Your task to perform on an android device: check android version Image 0: 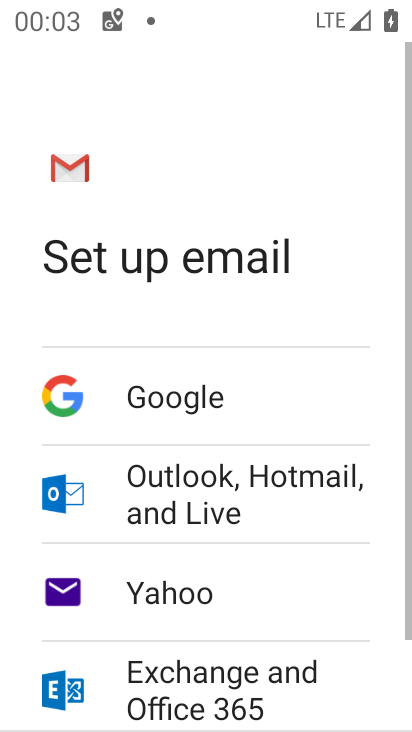
Step 0: press back button
Your task to perform on an android device: check android version Image 1: 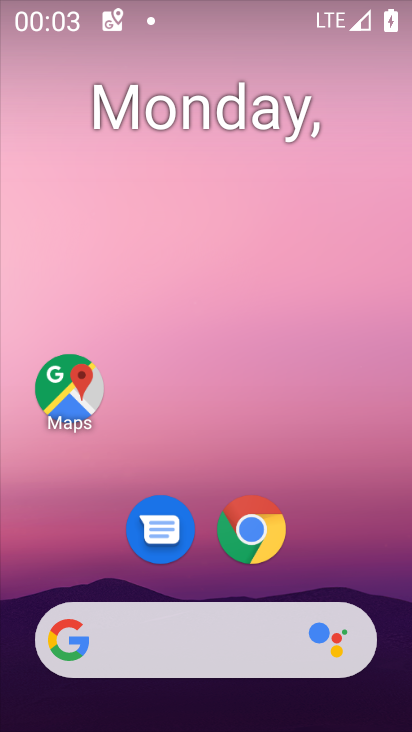
Step 1: drag from (349, 550) to (267, 5)
Your task to perform on an android device: check android version Image 2: 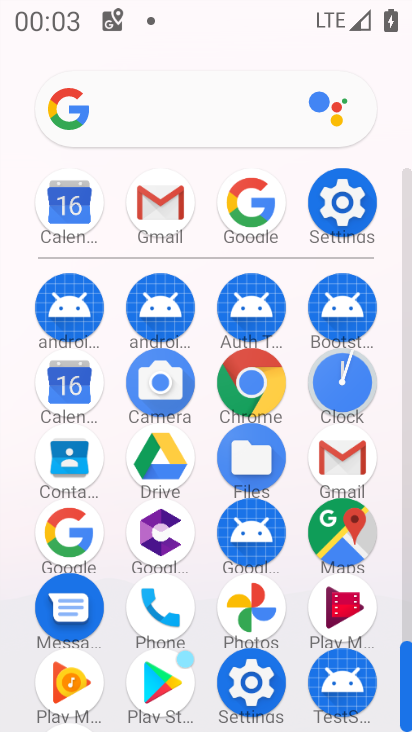
Step 2: click (343, 201)
Your task to perform on an android device: check android version Image 3: 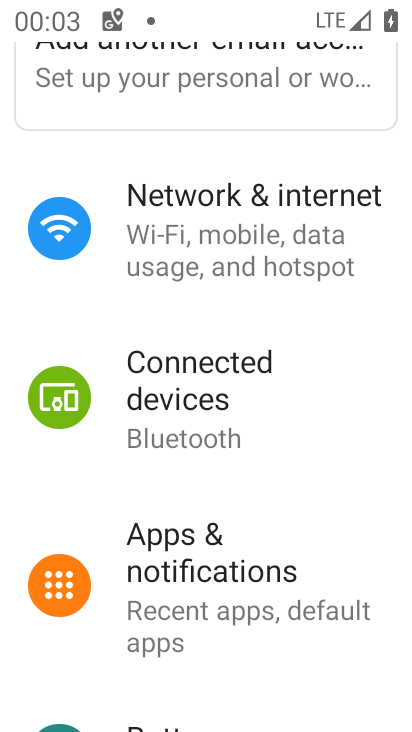
Step 3: drag from (246, 510) to (336, 352)
Your task to perform on an android device: check android version Image 4: 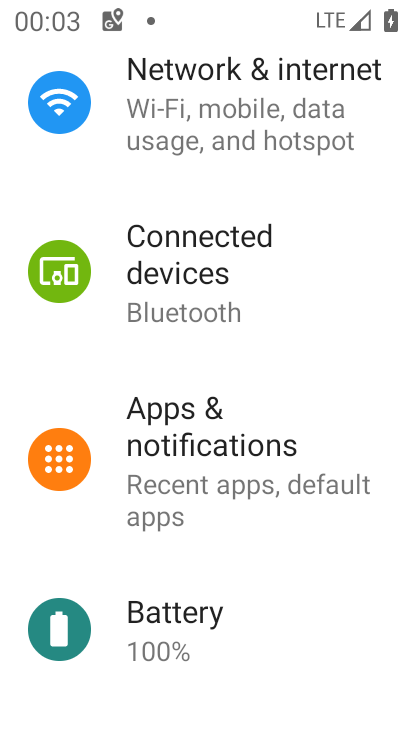
Step 4: drag from (237, 564) to (292, 408)
Your task to perform on an android device: check android version Image 5: 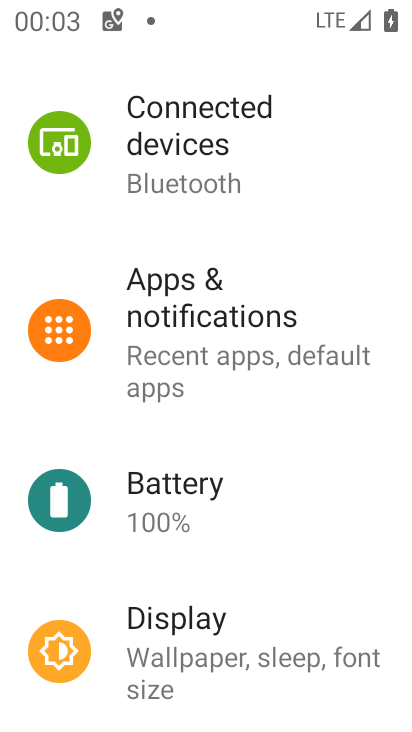
Step 5: drag from (210, 688) to (286, 405)
Your task to perform on an android device: check android version Image 6: 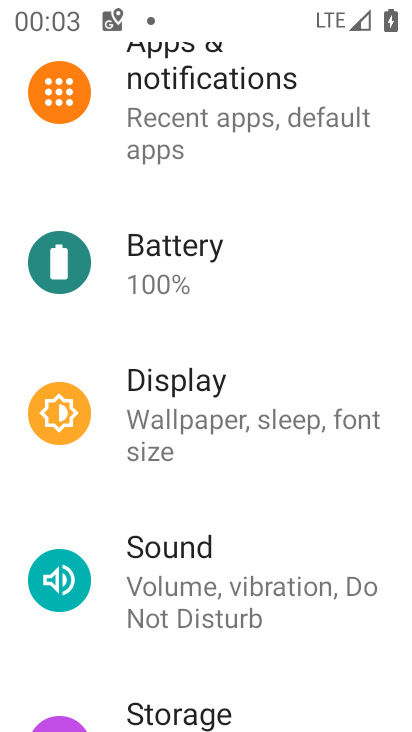
Step 6: drag from (270, 544) to (336, 323)
Your task to perform on an android device: check android version Image 7: 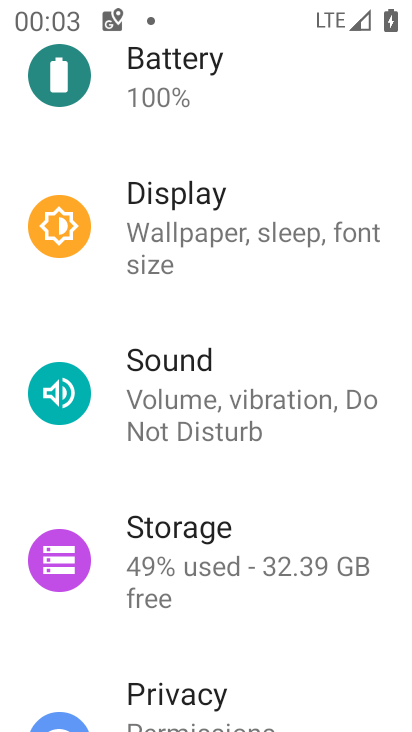
Step 7: drag from (177, 485) to (265, 326)
Your task to perform on an android device: check android version Image 8: 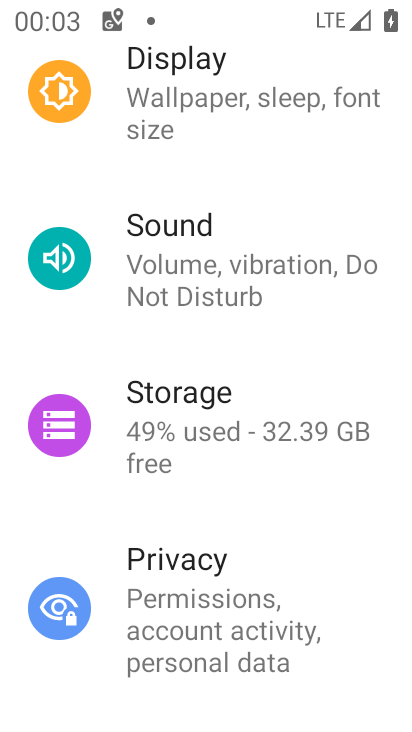
Step 8: drag from (180, 501) to (237, 343)
Your task to perform on an android device: check android version Image 9: 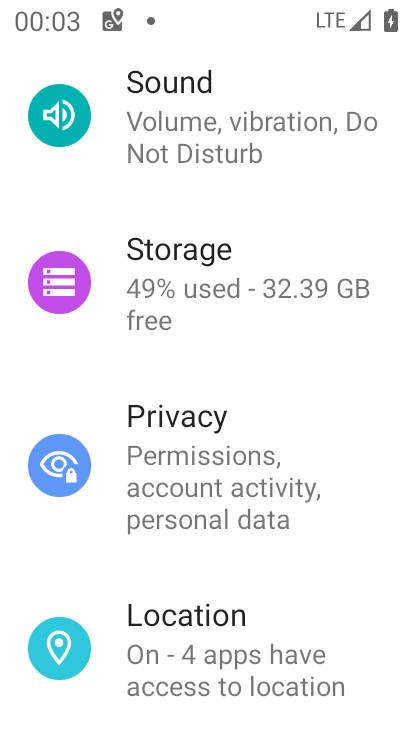
Step 9: drag from (182, 571) to (261, 396)
Your task to perform on an android device: check android version Image 10: 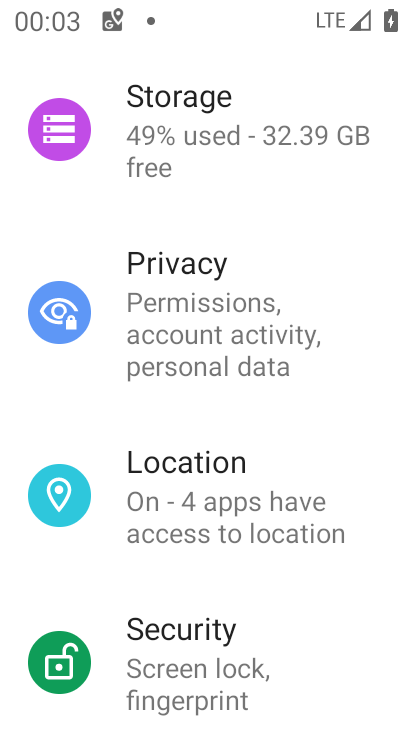
Step 10: drag from (182, 584) to (263, 369)
Your task to perform on an android device: check android version Image 11: 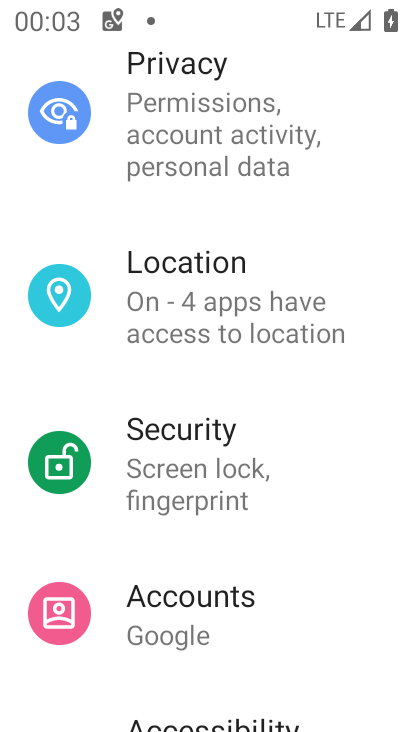
Step 11: drag from (175, 549) to (254, 374)
Your task to perform on an android device: check android version Image 12: 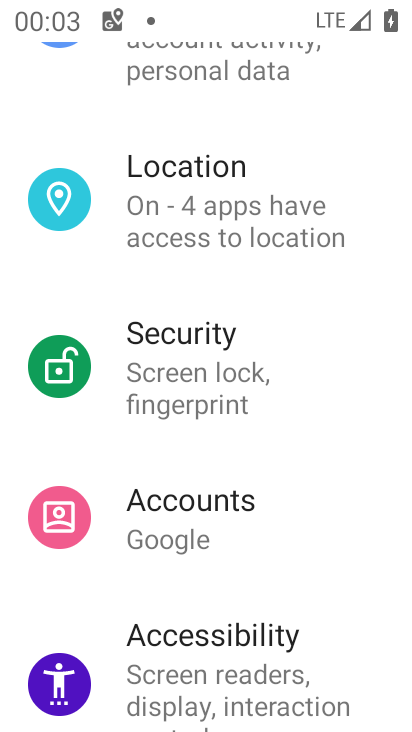
Step 12: drag from (176, 594) to (237, 466)
Your task to perform on an android device: check android version Image 13: 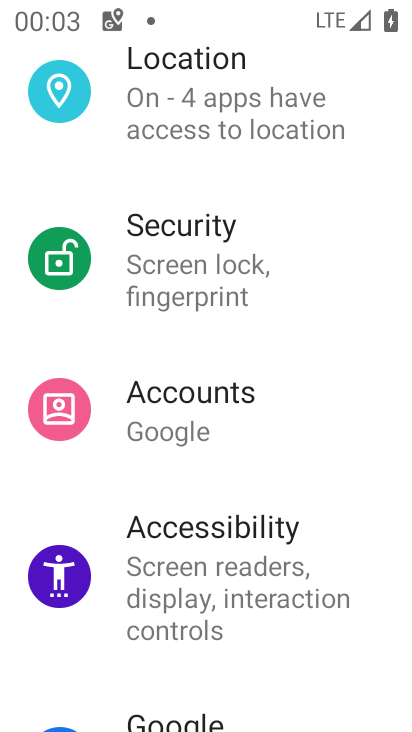
Step 13: drag from (157, 660) to (268, 419)
Your task to perform on an android device: check android version Image 14: 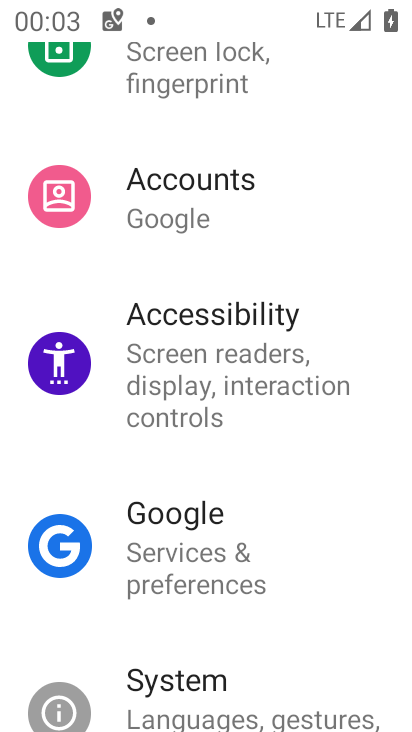
Step 14: drag from (167, 633) to (218, 417)
Your task to perform on an android device: check android version Image 15: 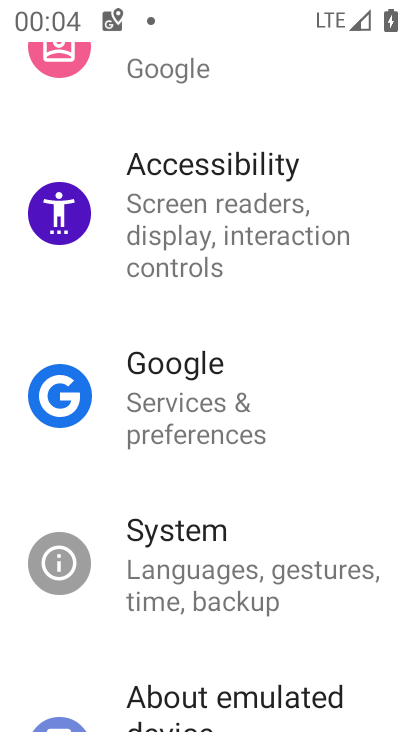
Step 15: drag from (175, 654) to (285, 463)
Your task to perform on an android device: check android version Image 16: 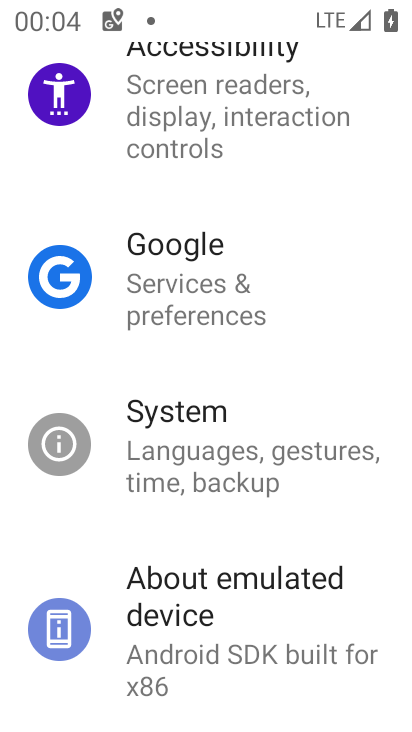
Step 16: click (220, 580)
Your task to perform on an android device: check android version Image 17: 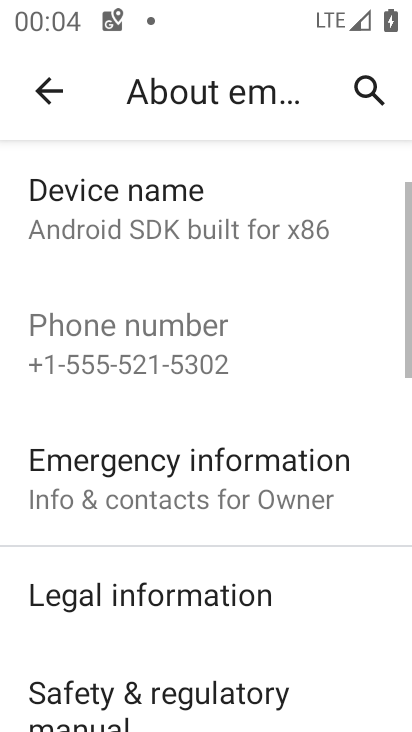
Step 17: drag from (159, 579) to (224, 485)
Your task to perform on an android device: check android version Image 18: 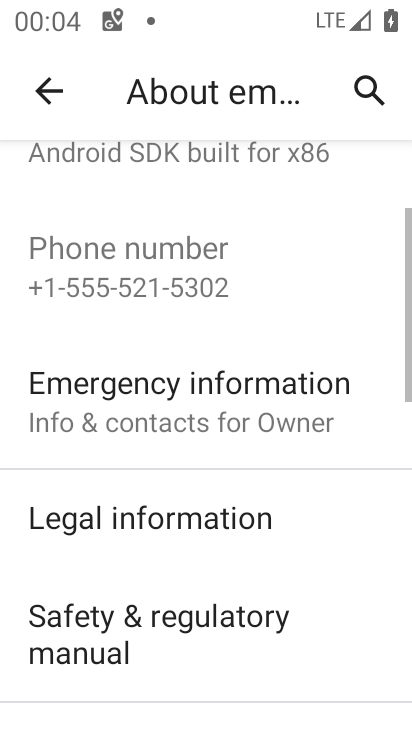
Step 18: drag from (155, 639) to (232, 508)
Your task to perform on an android device: check android version Image 19: 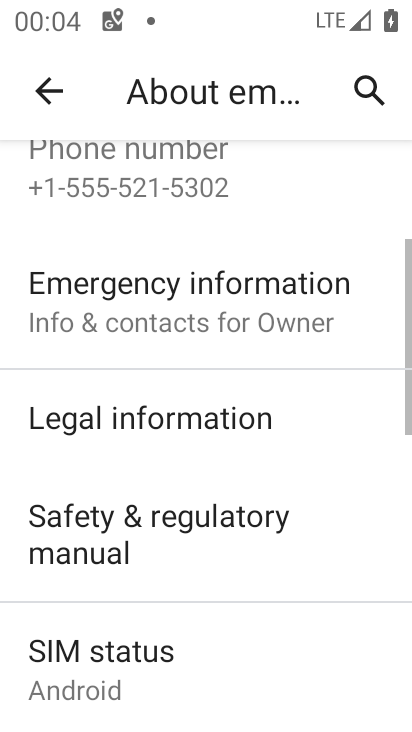
Step 19: drag from (173, 625) to (228, 474)
Your task to perform on an android device: check android version Image 20: 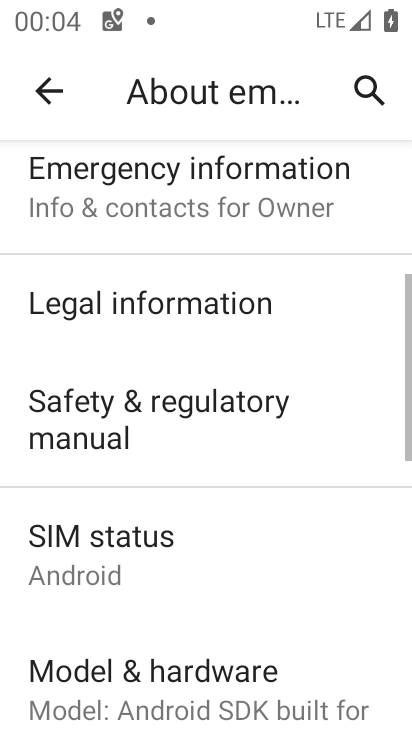
Step 20: drag from (217, 563) to (289, 403)
Your task to perform on an android device: check android version Image 21: 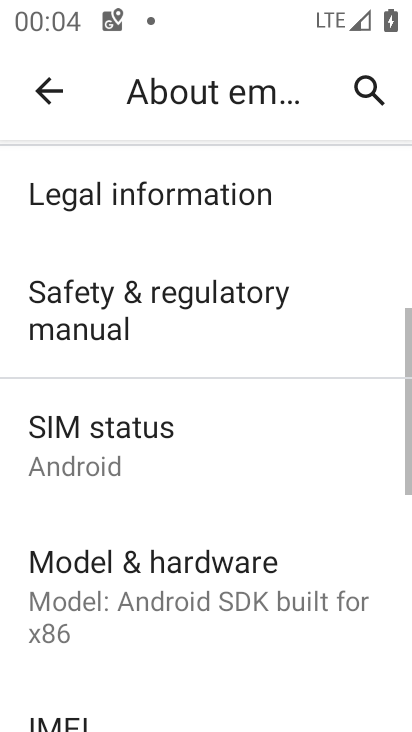
Step 21: drag from (191, 532) to (259, 405)
Your task to perform on an android device: check android version Image 22: 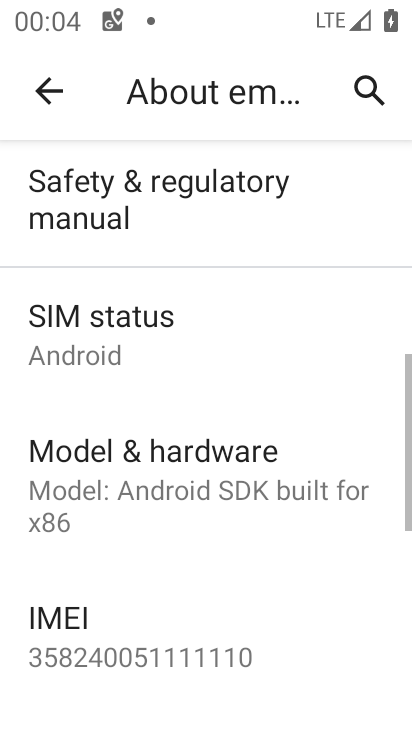
Step 22: drag from (193, 617) to (292, 471)
Your task to perform on an android device: check android version Image 23: 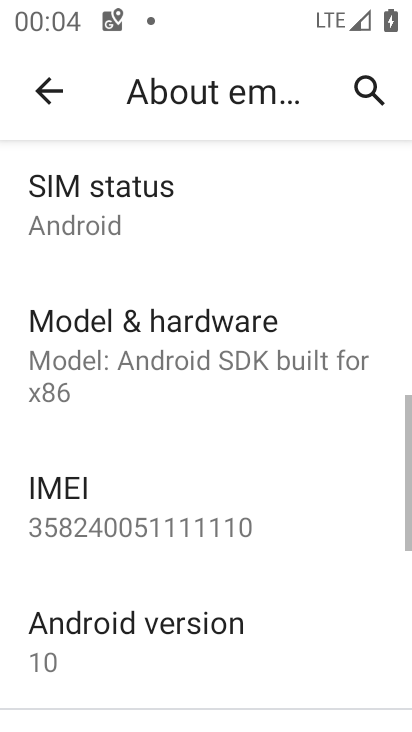
Step 23: click (213, 621)
Your task to perform on an android device: check android version Image 24: 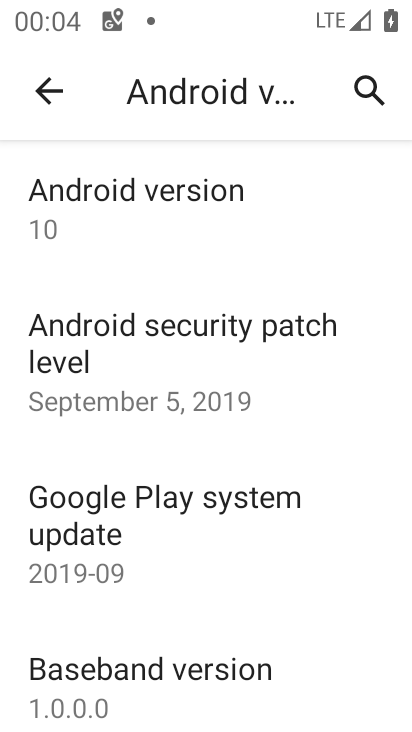
Step 24: task complete